Your task to perform on an android device: install app "Google Duo" Image 0: 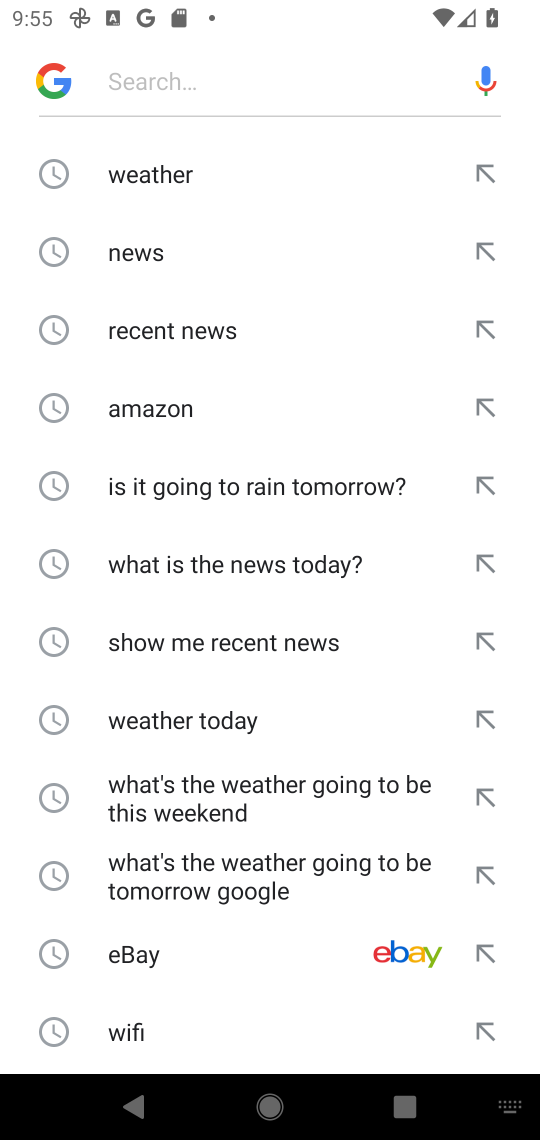
Step 0: press home button
Your task to perform on an android device: install app "Google Duo" Image 1: 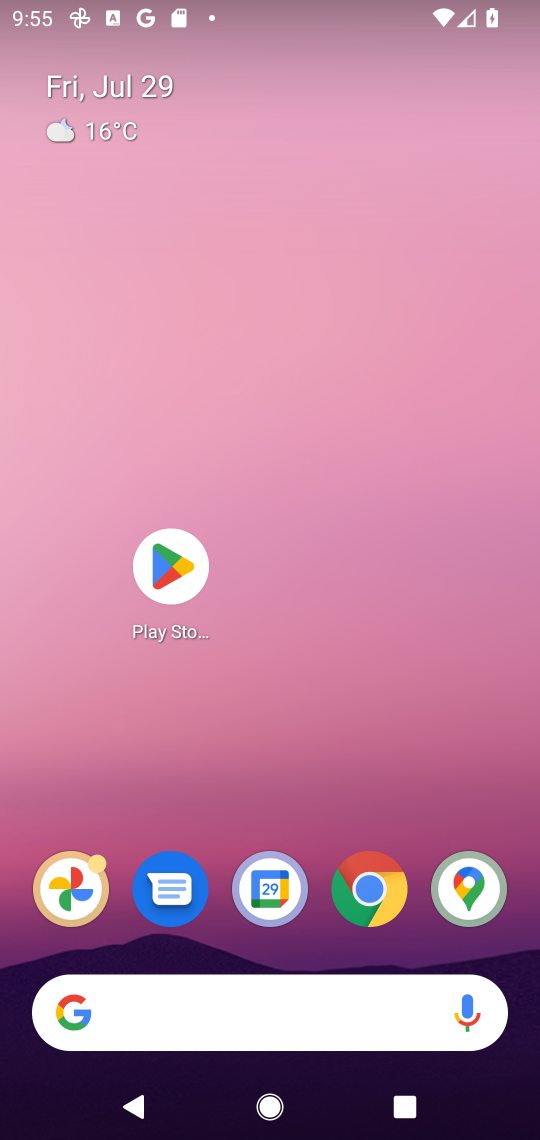
Step 1: click (174, 567)
Your task to perform on an android device: install app "Google Duo" Image 2: 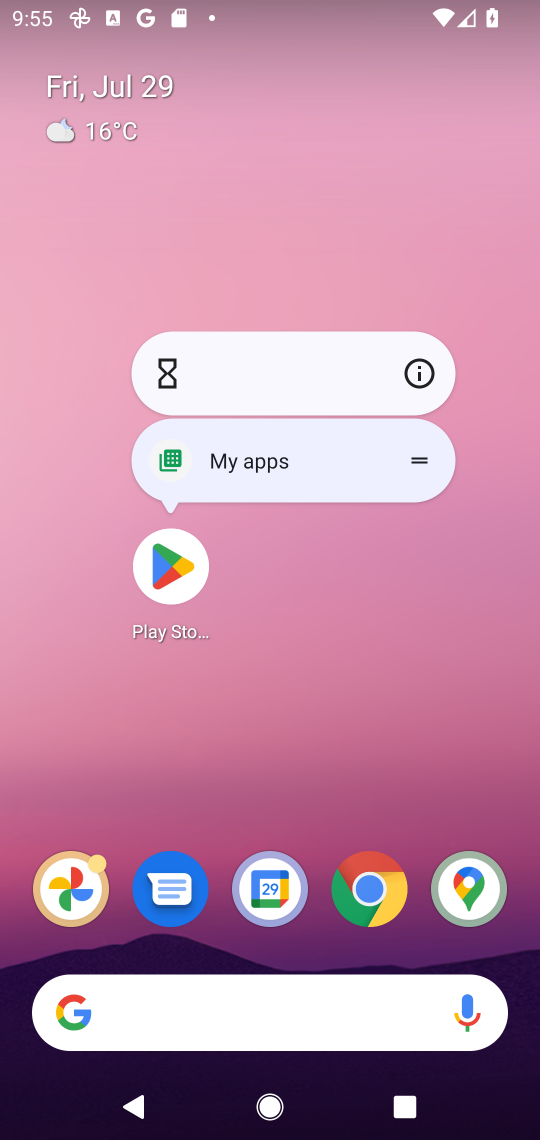
Step 2: click (172, 569)
Your task to perform on an android device: install app "Google Duo" Image 3: 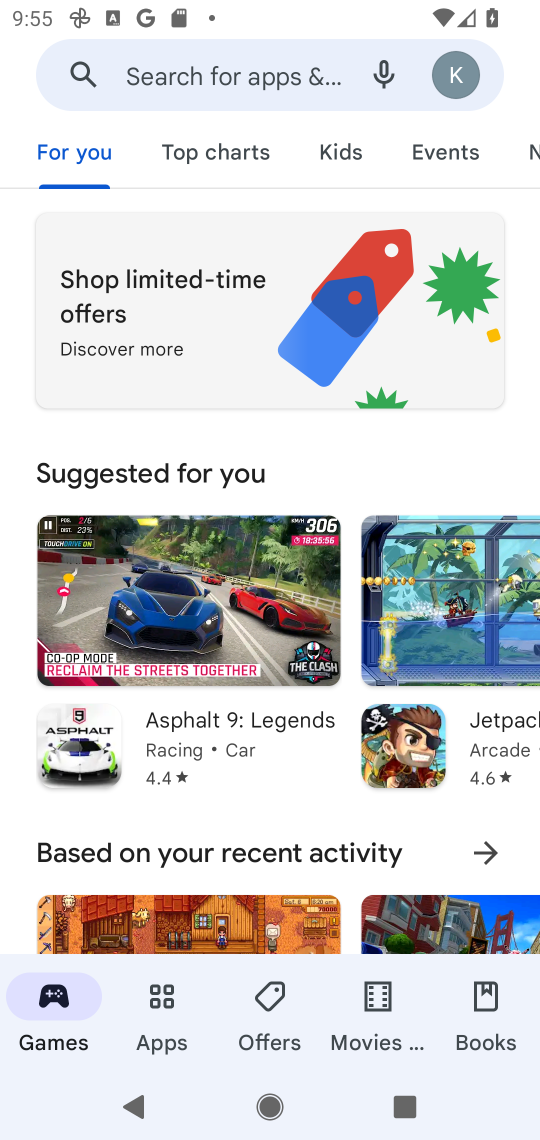
Step 3: click (266, 65)
Your task to perform on an android device: install app "Google Duo" Image 4: 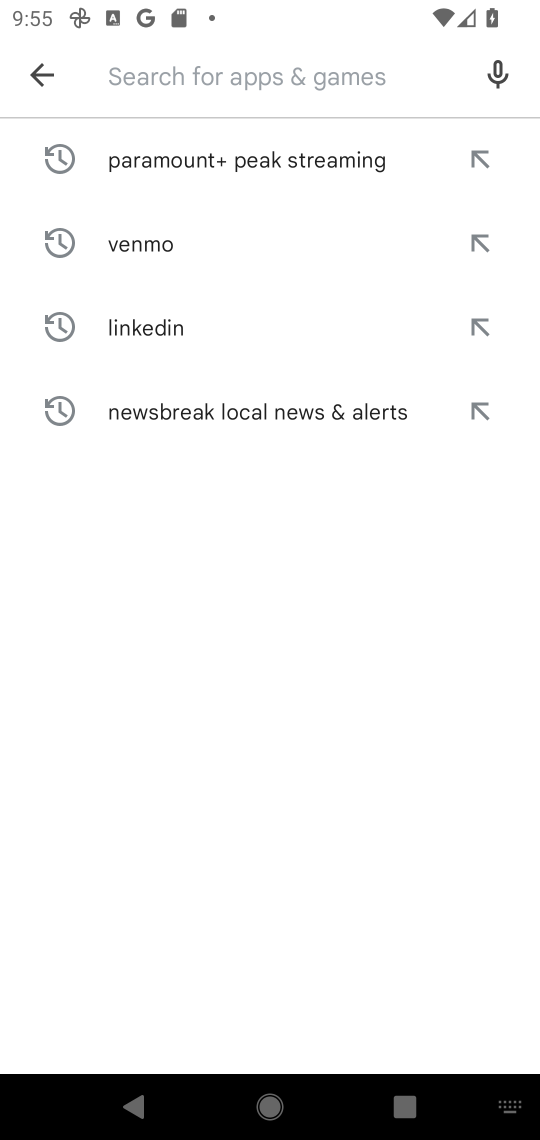
Step 4: type "Google Duo"
Your task to perform on an android device: install app "Google Duo" Image 5: 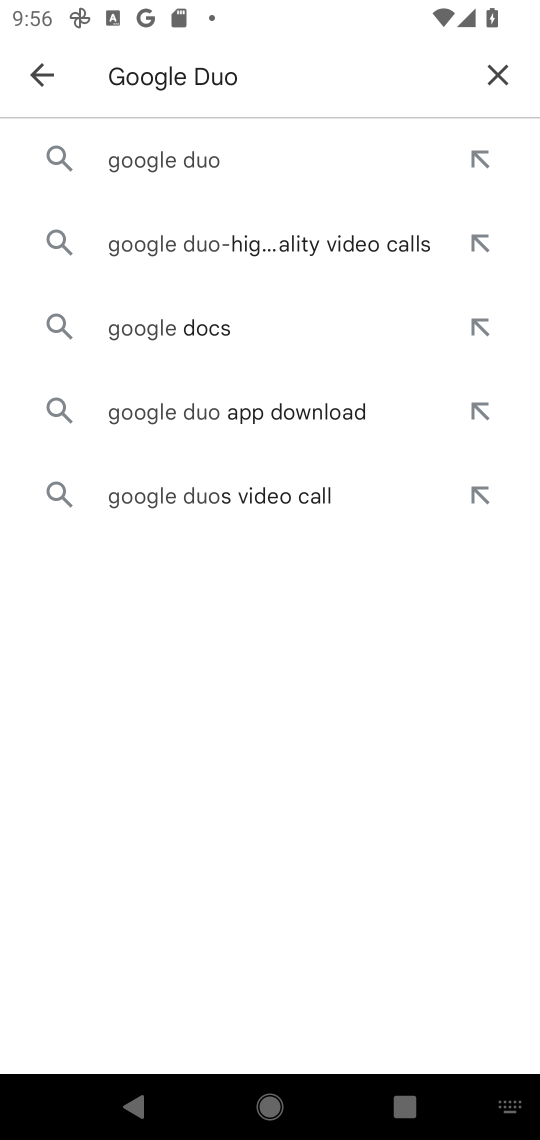
Step 5: click (135, 155)
Your task to perform on an android device: install app "Google Duo" Image 6: 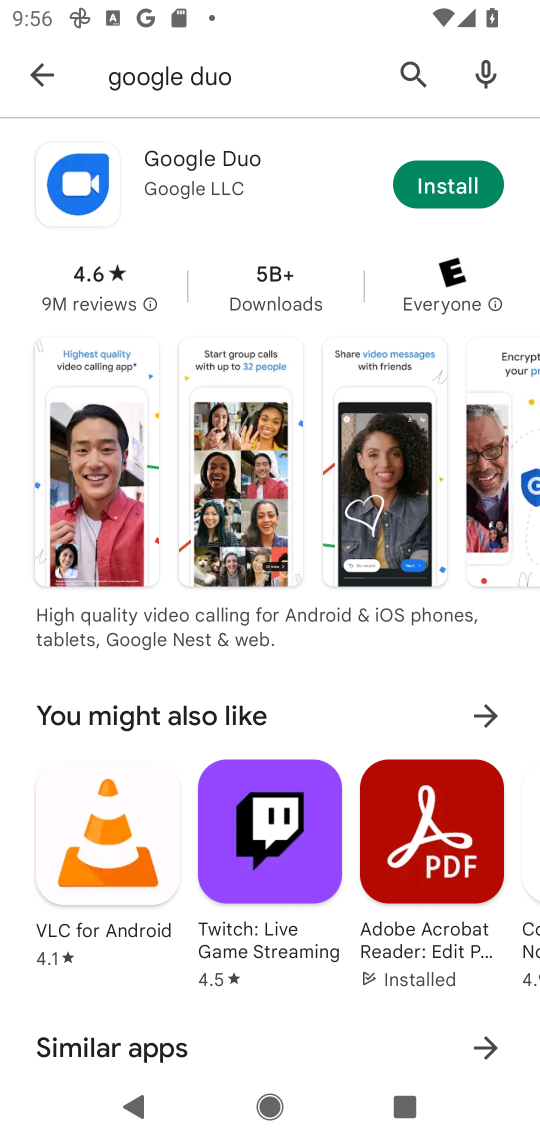
Step 6: click (456, 183)
Your task to perform on an android device: install app "Google Duo" Image 7: 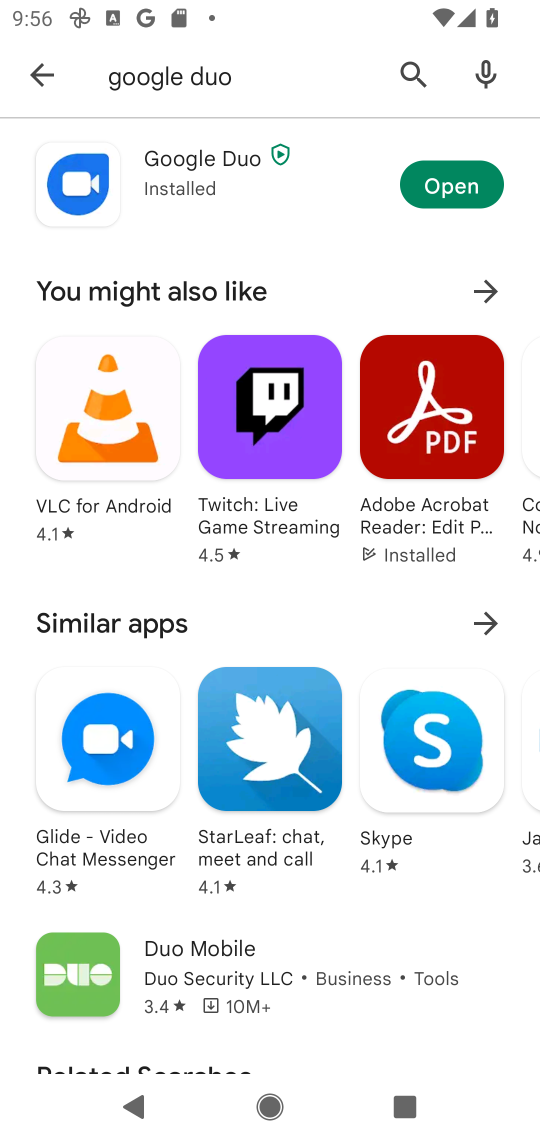
Step 7: task complete